Your task to perform on an android device: Go to eBay Image 0: 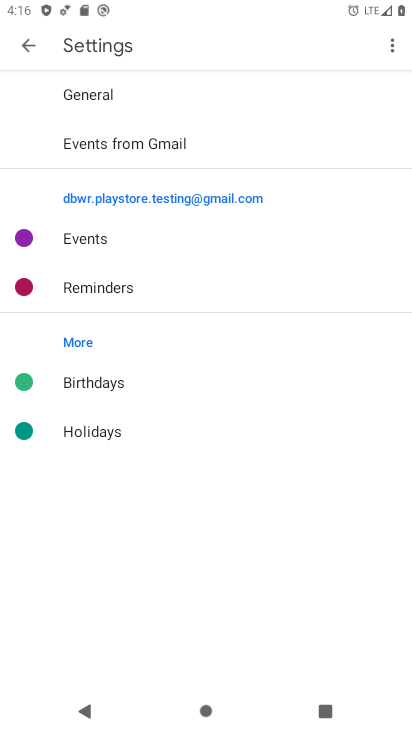
Step 0: press home button
Your task to perform on an android device: Go to eBay Image 1: 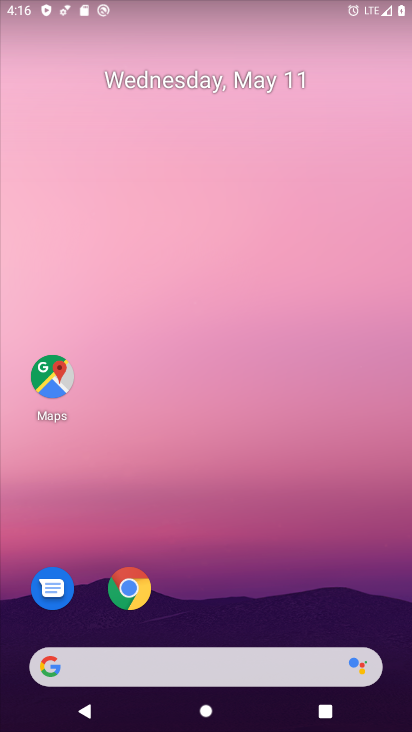
Step 1: drag from (271, 576) to (329, 0)
Your task to perform on an android device: Go to eBay Image 2: 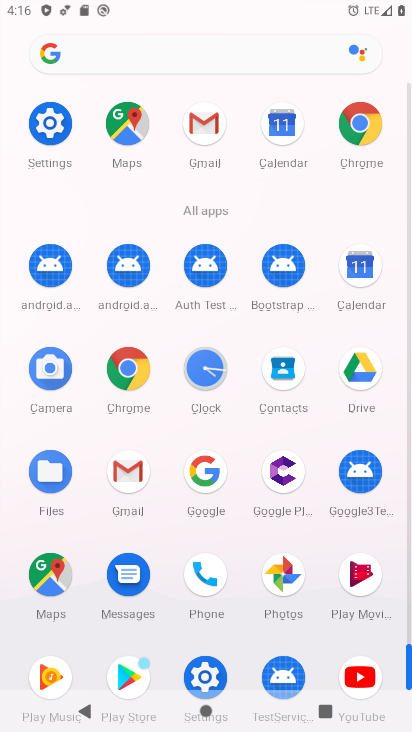
Step 2: click (371, 122)
Your task to perform on an android device: Go to eBay Image 3: 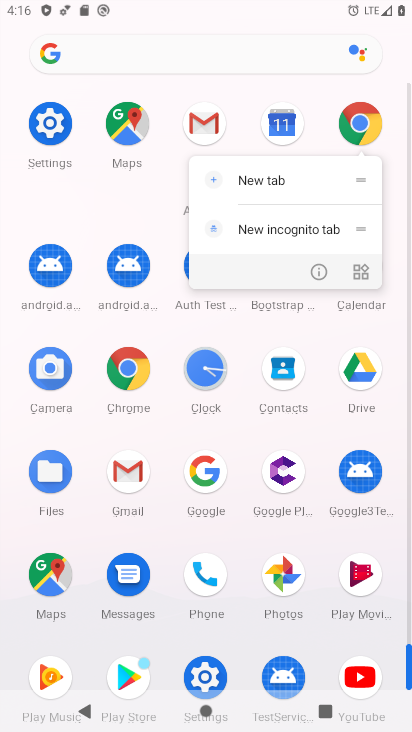
Step 3: click (371, 122)
Your task to perform on an android device: Go to eBay Image 4: 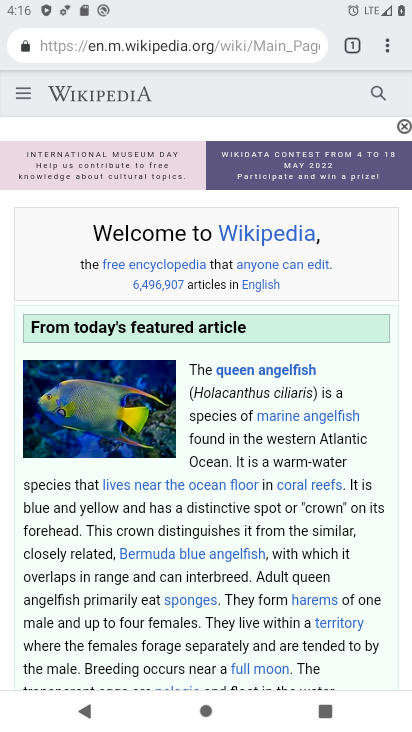
Step 4: click (261, 45)
Your task to perform on an android device: Go to eBay Image 5: 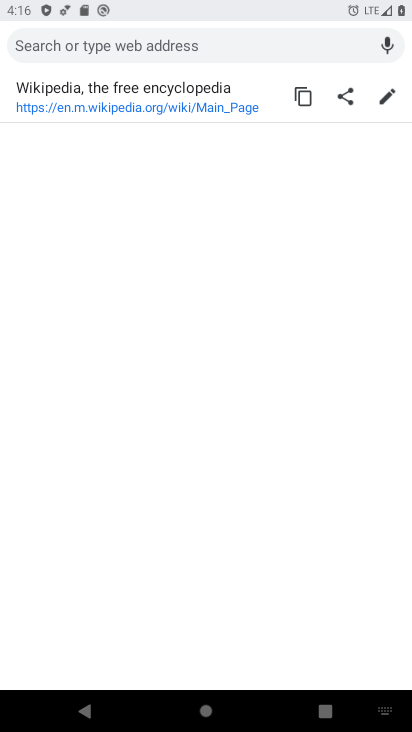
Step 5: type "ebay"
Your task to perform on an android device: Go to eBay Image 6: 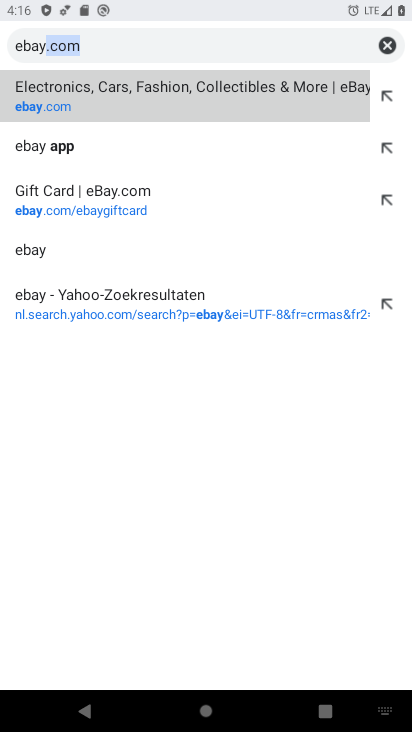
Step 6: click (71, 119)
Your task to perform on an android device: Go to eBay Image 7: 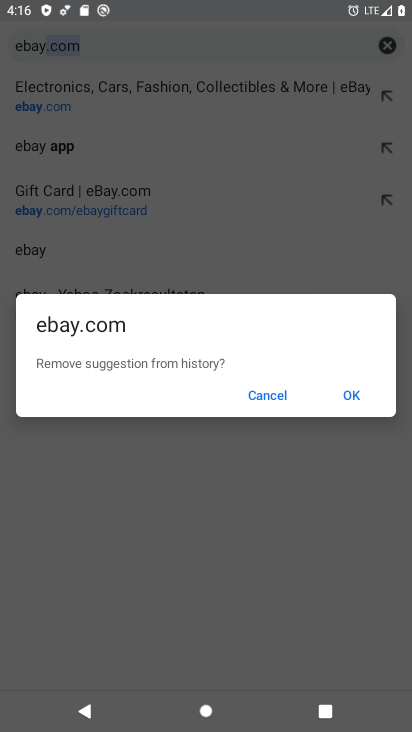
Step 7: click (269, 392)
Your task to perform on an android device: Go to eBay Image 8: 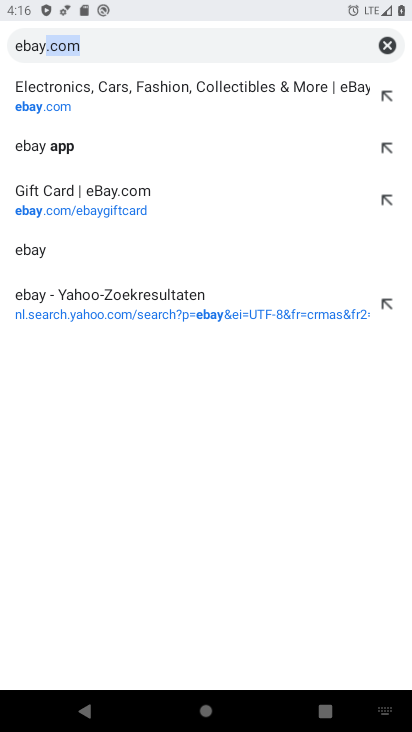
Step 8: click (49, 114)
Your task to perform on an android device: Go to eBay Image 9: 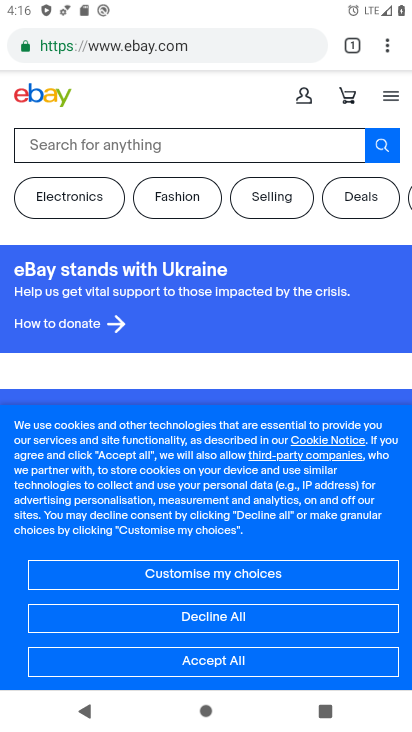
Step 9: task complete